Your task to perform on an android device: Search for sushi restaurants on Maps Image 0: 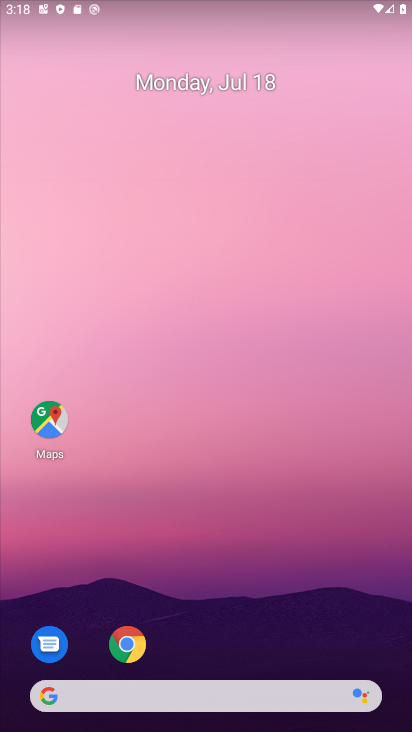
Step 0: click (46, 422)
Your task to perform on an android device: Search for sushi restaurants on Maps Image 1: 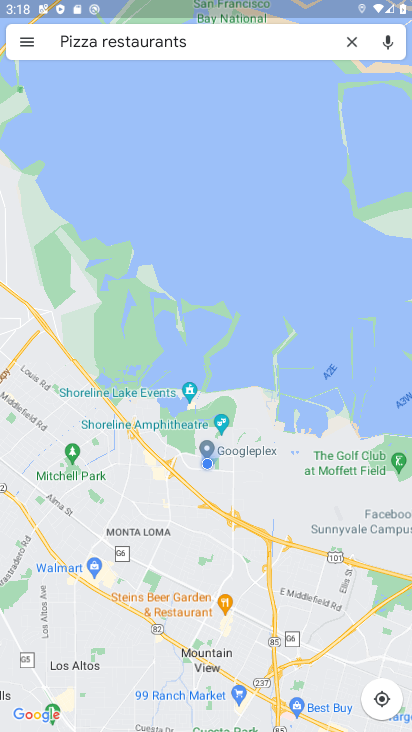
Step 1: click (349, 39)
Your task to perform on an android device: Search for sushi restaurants on Maps Image 2: 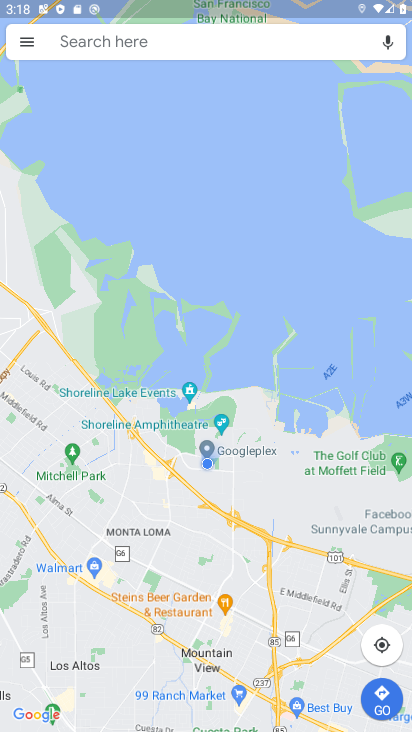
Step 2: click (135, 37)
Your task to perform on an android device: Search for sushi restaurants on Maps Image 3: 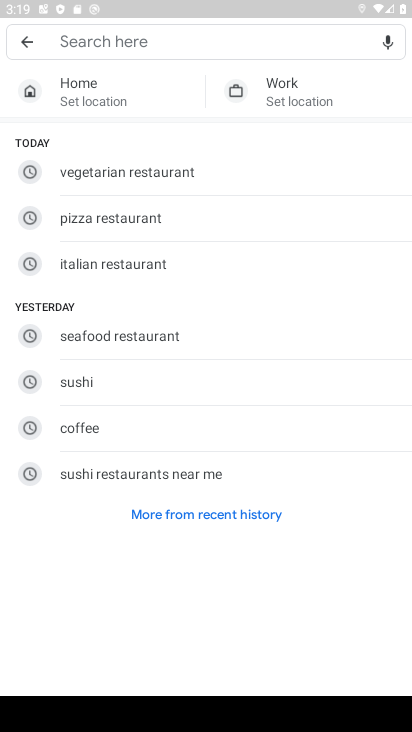
Step 3: type "sushi restaurants"
Your task to perform on an android device: Search for sushi restaurants on Maps Image 4: 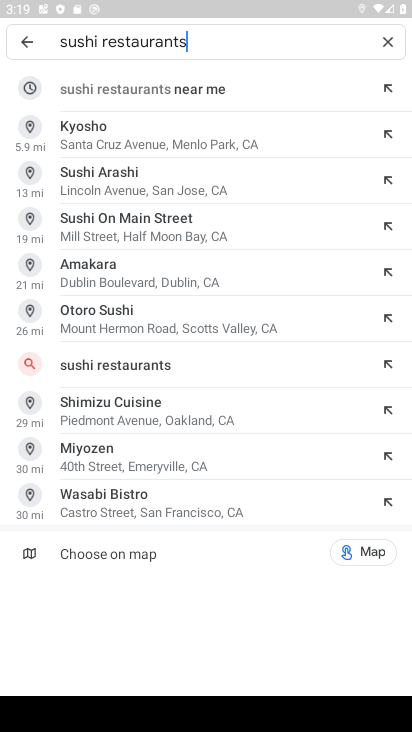
Step 4: click (112, 85)
Your task to perform on an android device: Search for sushi restaurants on Maps Image 5: 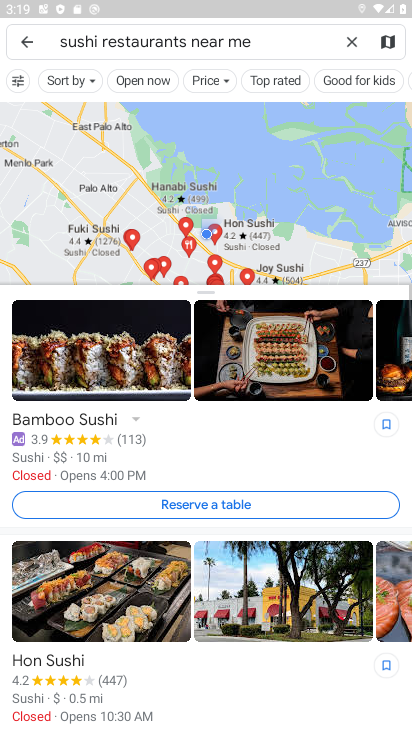
Step 5: task complete